Your task to perform on an android device: Open Wikipedia Image 0: 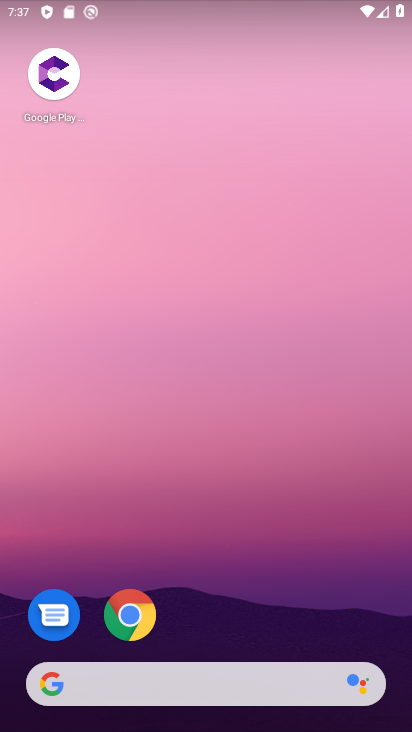
Step 0: drag from (239, 639) to (230, 97)
Your task to perform on an android device: Open Wikipedia Image 1: 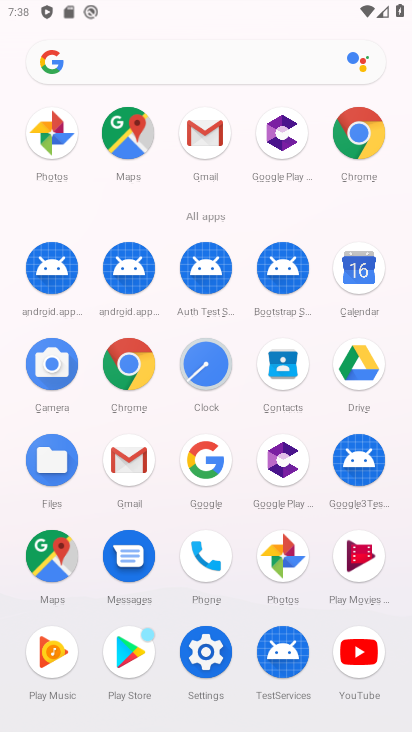
Step 1: click (135, 368)
Your task to perform on an android device: Open Wikipedia Image 2: 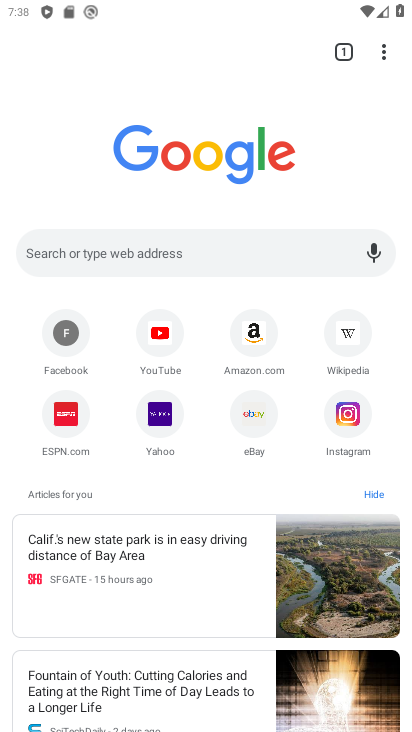
Step 2: click (346, 347)
Your task to perform on an android device: Open Wikipedia Image 3: 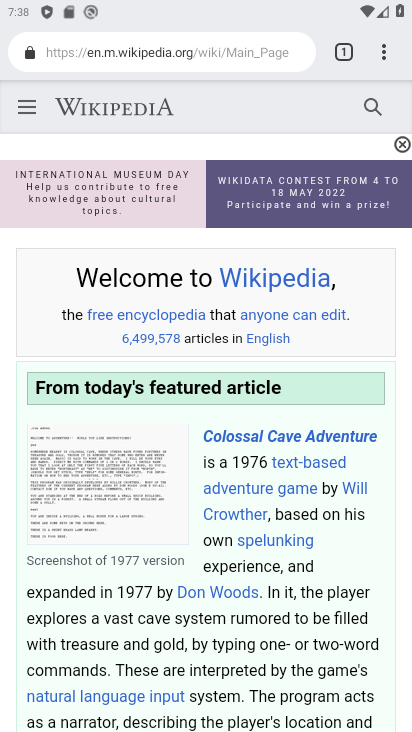
Step 3: task complete